Your task to perform on an android device: turn on bluetooth scan Image 0: 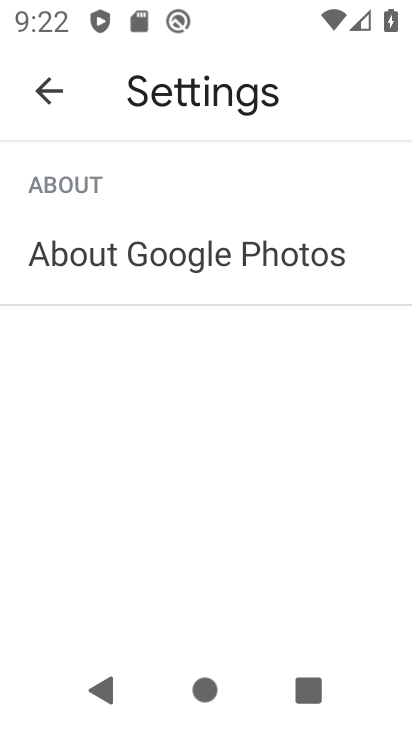
Step 0: press home button
Your task to perform on an android device: turn on bluetooth scan Image 1: 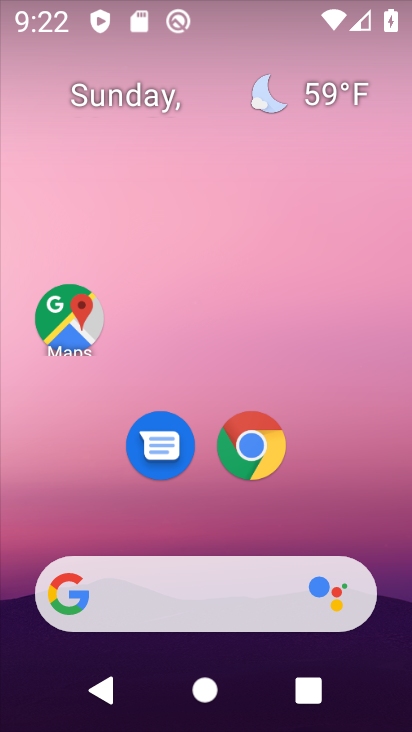
Step 1: drag from (92, 540) to (203, 113)
Your task to perform on an android device: turn on bluetooth scan Image 2: 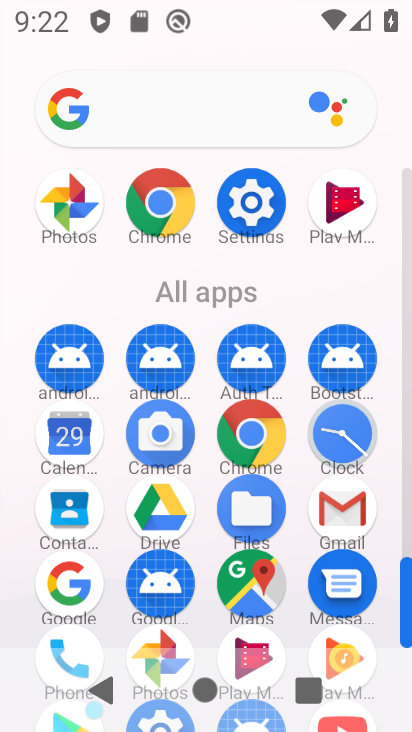
Step 2: drag from (133, 684) to (265, 366)
Your task to perform on an android device: turn on bluetooth scan Image 3: 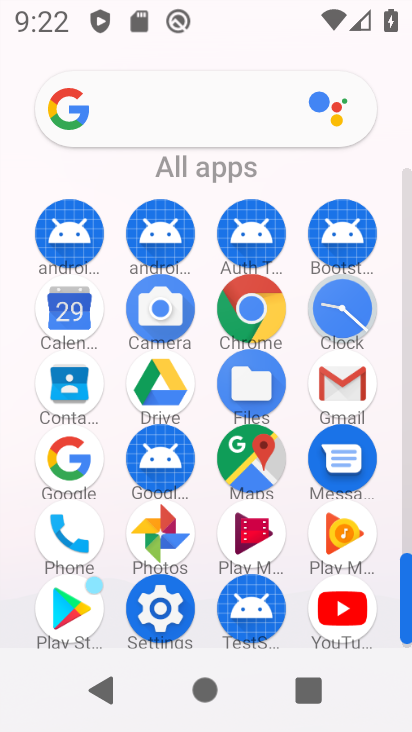
Step 3: click (164, 612)
Your task to perform on an android device: turn on bluetooth scan Image 4: 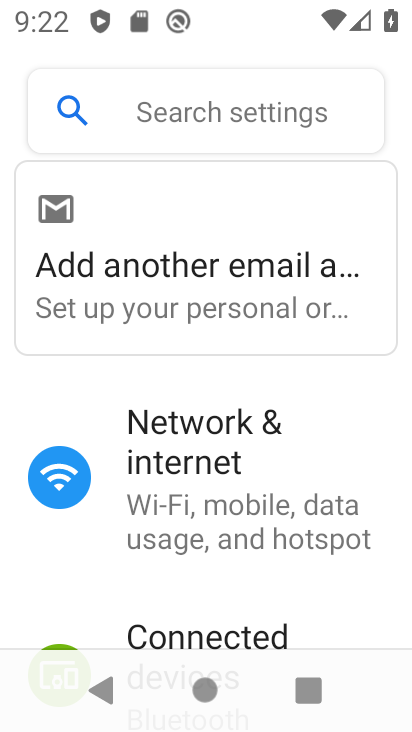
Step 4: drag from (251, 520) to (410, 146)
Your task to perform on an android device: turn on bluetooth scan Image 5: 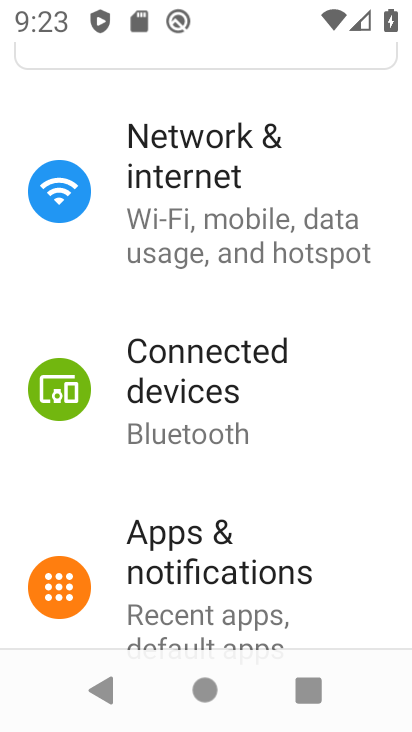
Step 5: click (243, 361)
Your task to perform on an android device: turn on bluetooth scan Image 6: 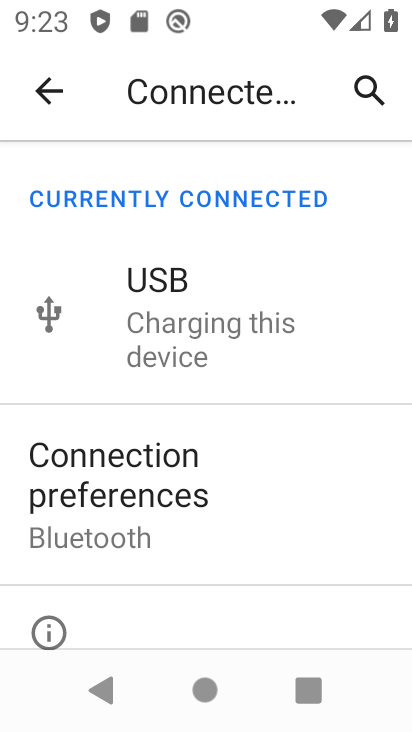
Step 6: click (203, 527)
Your task to perform on an android device: turn on bluetooth scan Image 7: 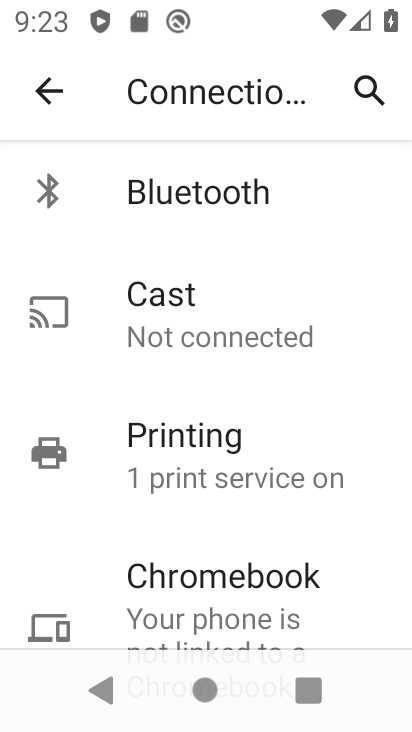
Step 7: click (304, 208)
Your task to perform on an android device: turn on bluetooth scan Image 8: 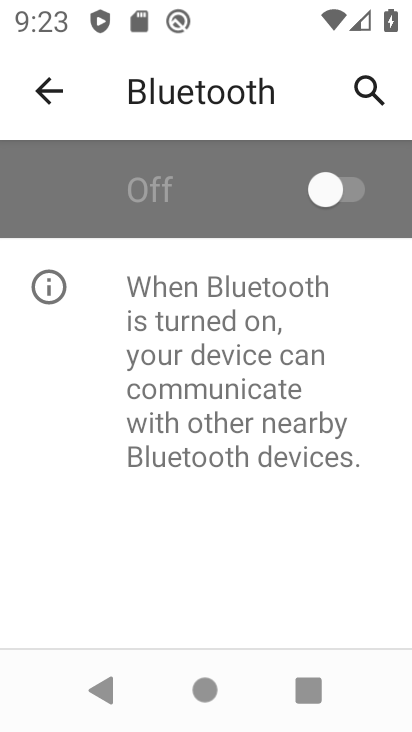
Step 8: click (402, 200)
Your task to perform on an android device: turn on bluetooth scan Image 9: 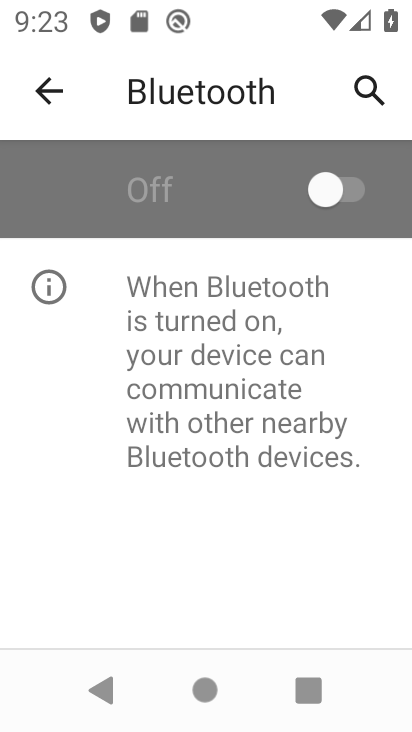
Step 9: task complete